Your task to perform on an android device: Open the web browser Image 0: 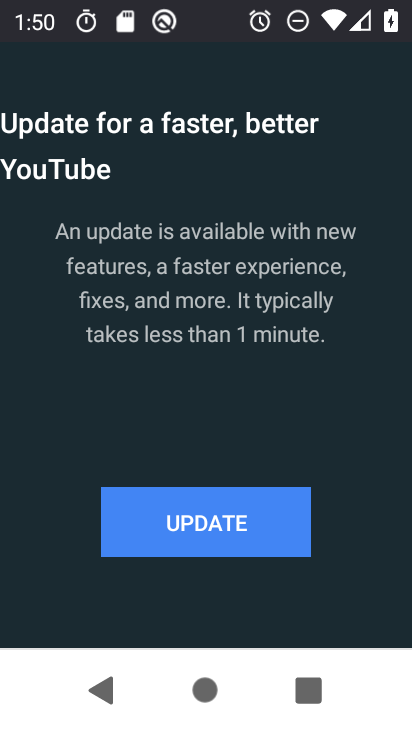
Step 0: press home button
Your task to perform on an android device: Open the web browser Image 1: 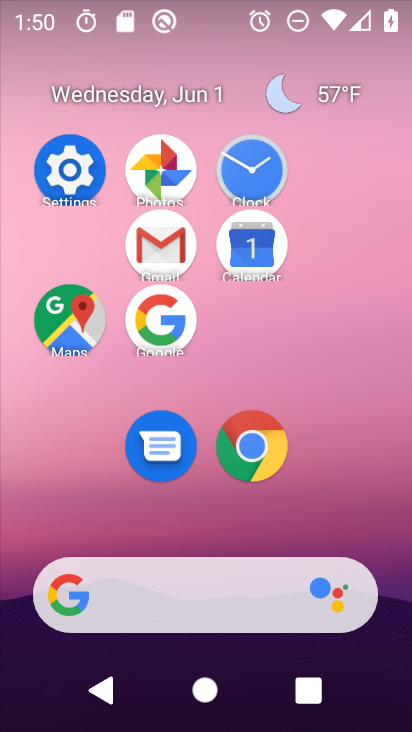
Step 1: click (261, 455)
Your task to perform on an android device: Open the web browser Image 2: 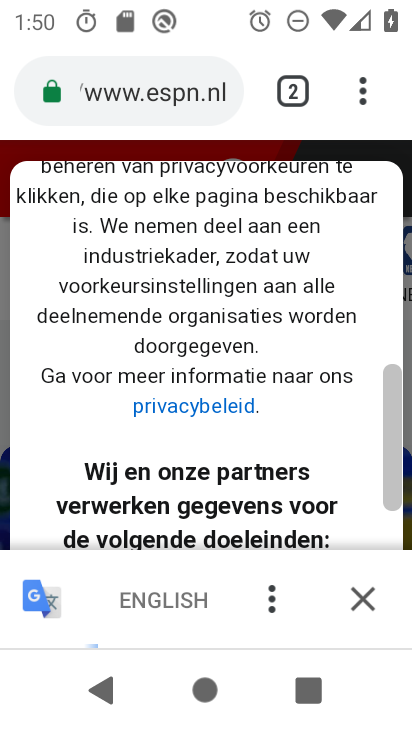
Step 2: task complete